Your task to perform on an android device: Go to calendar. Show me events next week Image 0: 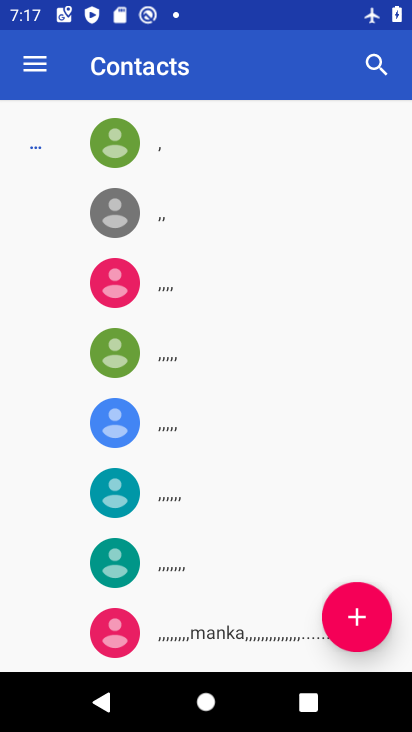
Step 0: press back button
Your task to perform on an android device: Go to calendar. Show me events next week Image 1: 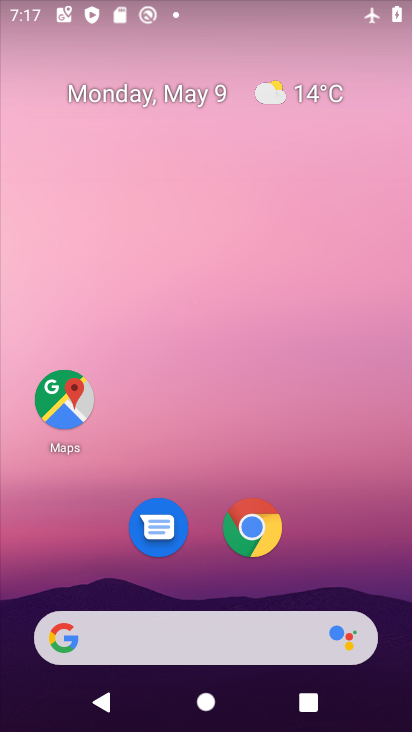
Step 1: drag from (342, 569) to (238, 11)
Your task to perform on an android device: Go to calendar. Show me events next week Image 2: 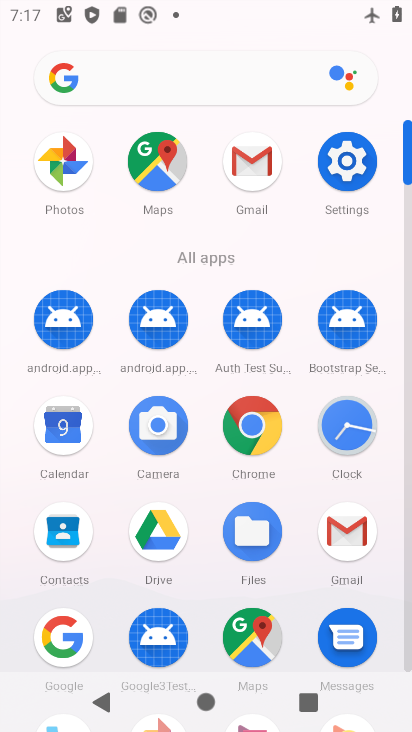
Step 2: drag from (205, 519) to (203, 299)
Your task to perform on an android device: Go to calendar. Show me events next week Image 3: 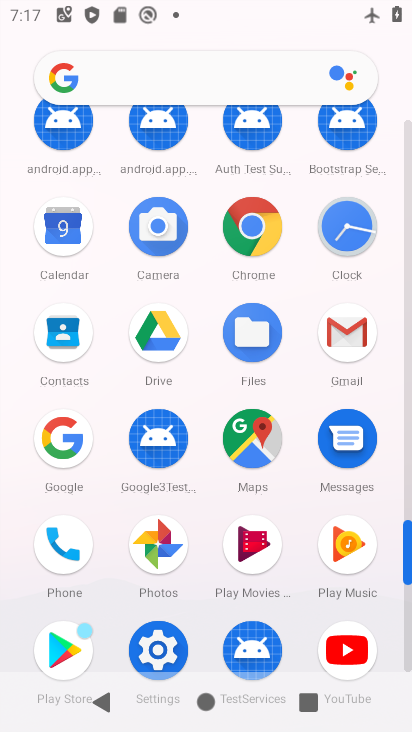
Step 3: click (62, 230)
Your task to perform on an android device: Go to calendar. Show me events next week Image 4: 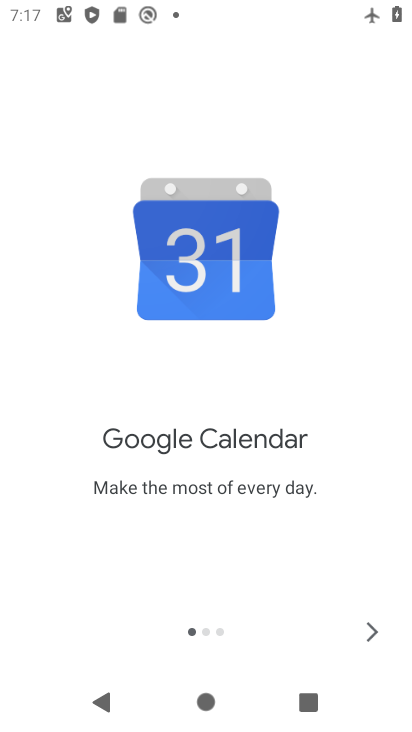
Step 4: click (376, 634)
Your task to perform on an android device: Go to calendar. Show me events next week Image 5: 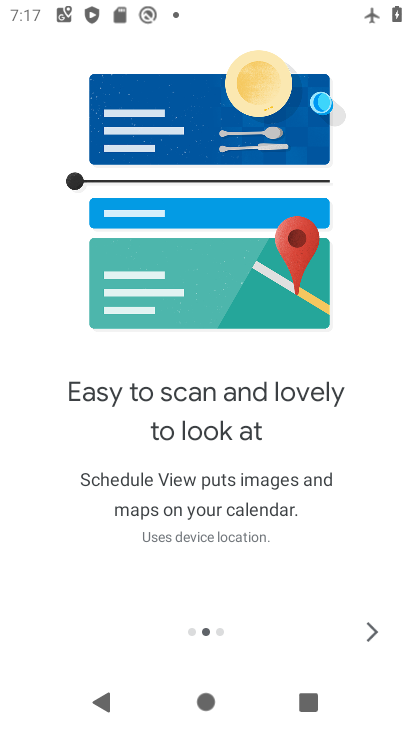
Step 5: click (376, 634)
Your task to perform on an android device: Go to calendar. Show me events next week Image 6: 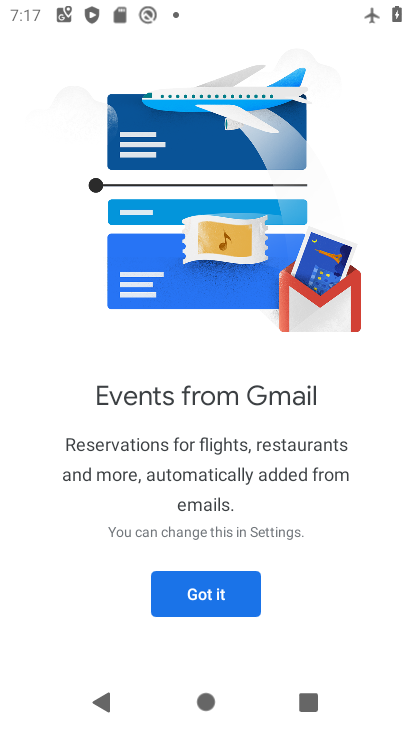
Step 6: click (203, 598)
Your task to perform on an android device: Go to calendar. Show me events next week Image 7: 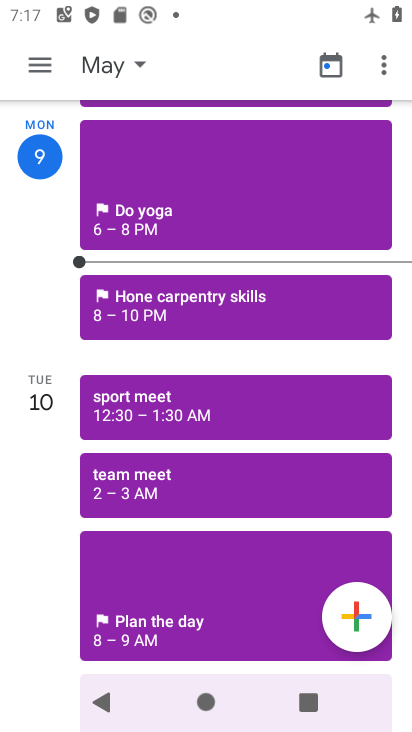
Step 7: click (140, 61)
Your task to perform on an android device: Go to calendar. Show me events next week Image 8: 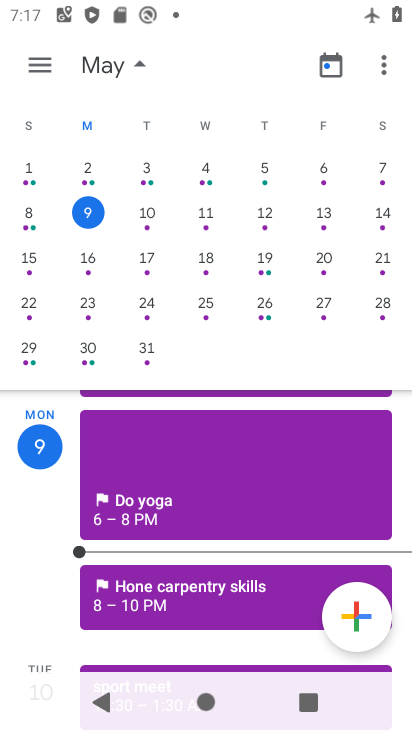
Step 8: click (88, 268)
Your task to perform on an android device: Go to calendar. Show me events next week Image 9: 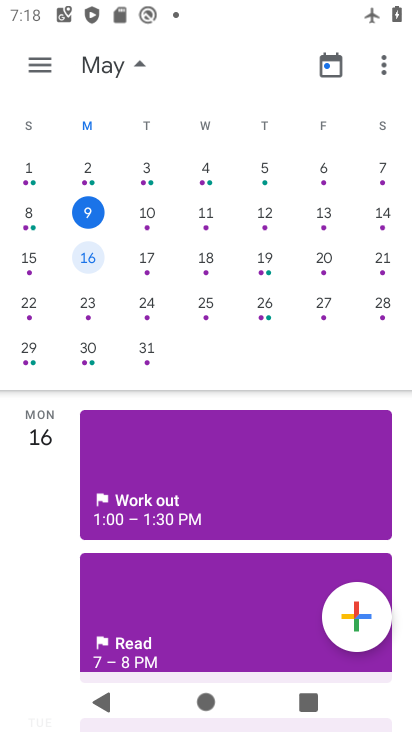
Step 9: click (38, 69)
Your task to perform on an android device: Go to calendar. Show me events next week Image 10: 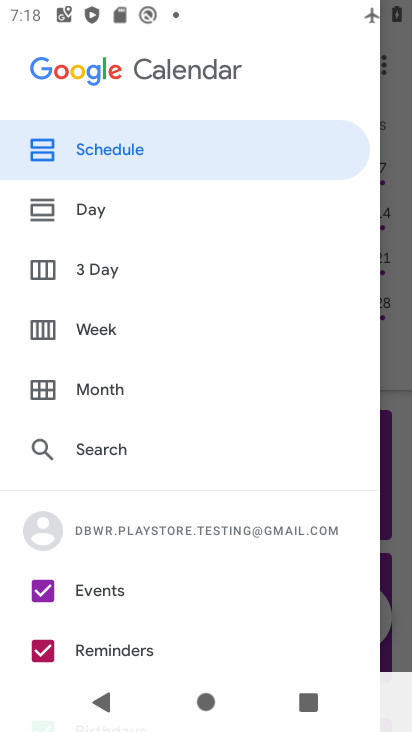
Step 10: click (116, 327)
Your task to perform on an android device: Go to calendar. Show me events next week Image 11: 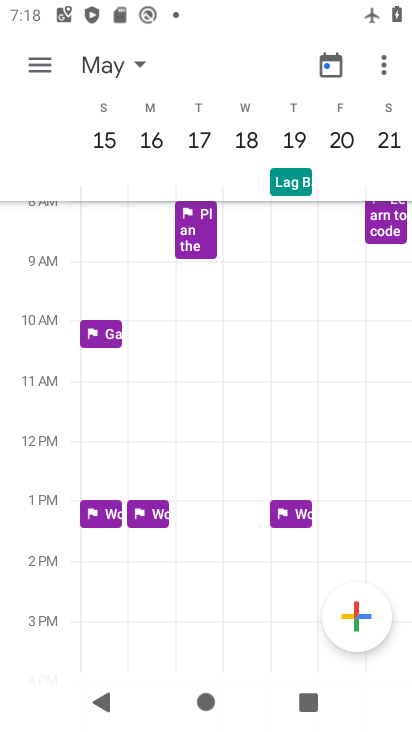
Step 11: task complete